Your task to perform on an android device: Open settings Image 0: 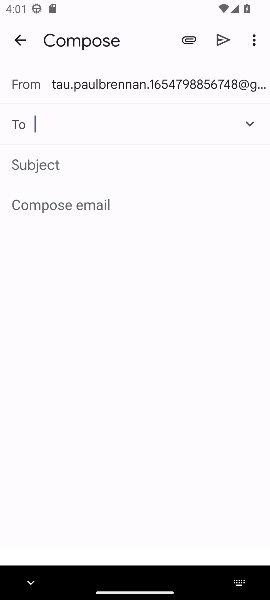
Step 0: press home button
Your task to perform on an android device: Open settings Image 1: 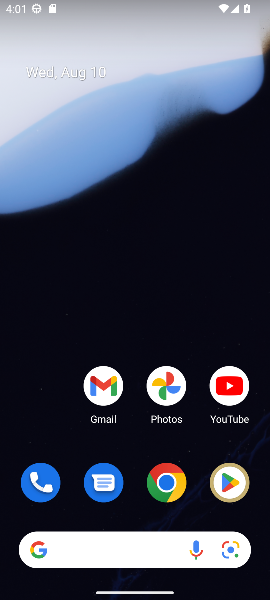
Step 1: drag from (74, 404) to (90, 154)
Your task to perform on an android device: Open settings Image 2: 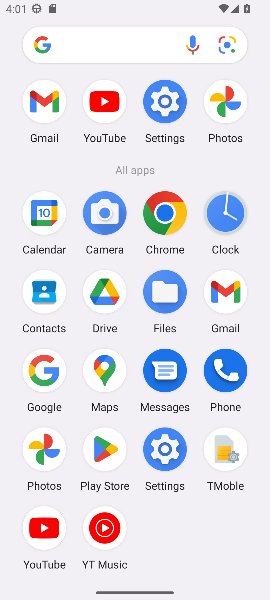
Step 2: click (162, 102)
Your task to perform on an android device: Open settings Image 3: 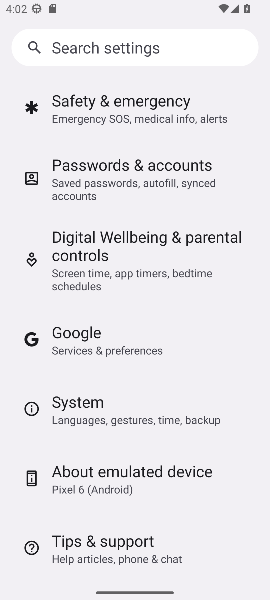
Step 3: task complete